Your task to perform on an android device: delete browsing data in the chrome app Image 0: 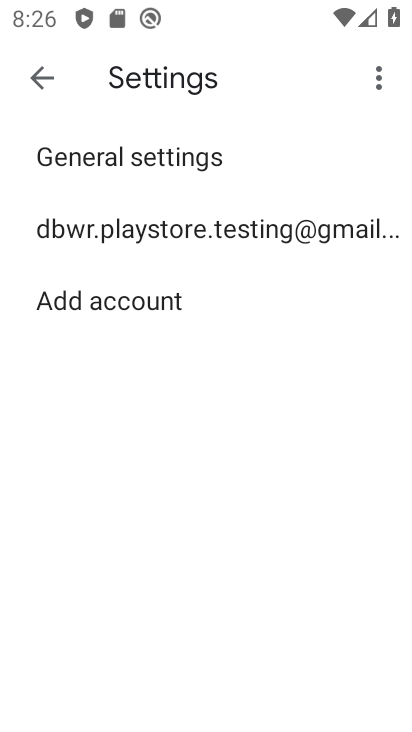
Step 0: press home button
Your task to perform on an android device: delete browsing data in the chrome app Image 1: 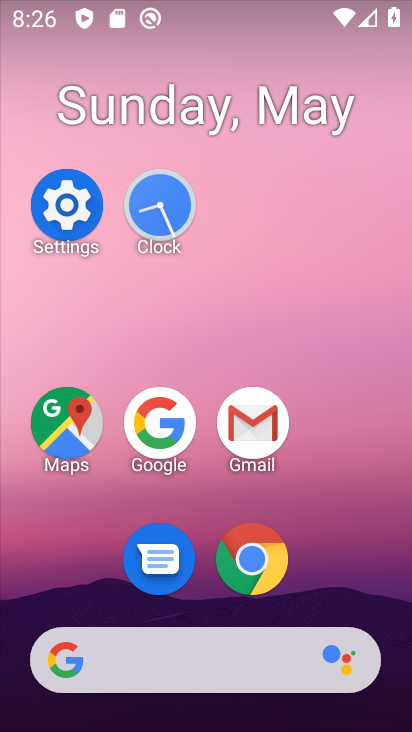
Step 1: click (259, 573)
Your task to perform on an android device: delete browsing data in the chrome app Image 2: 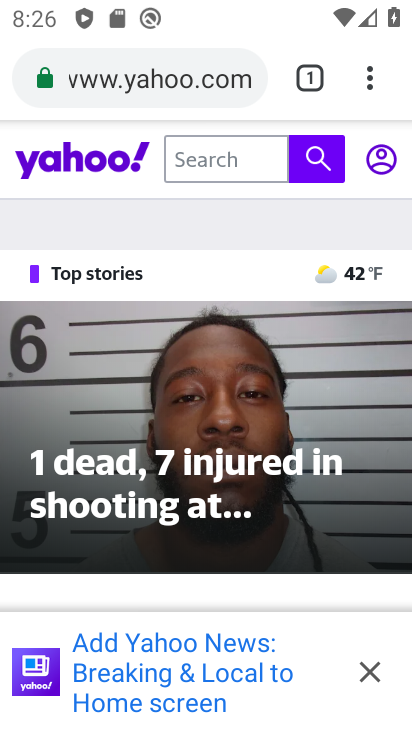
Step 2: click (371, 73)
Your task to perform on an android device: delete browsing data in the chrome app Image 3: 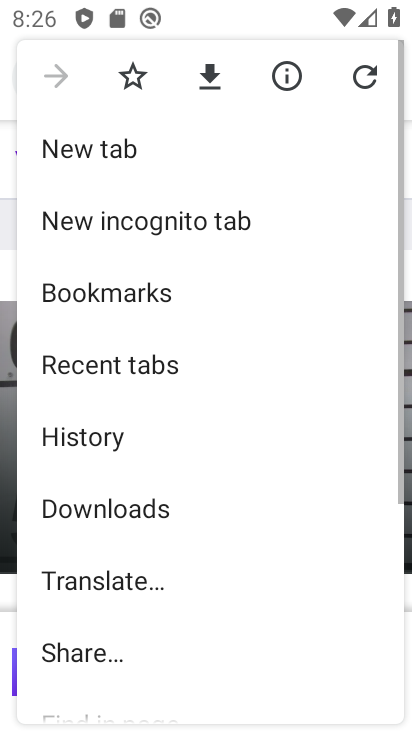
Step 3: drag from (186, 615) to (293, 241)
Your task to perform on an android device: delete browsing data in the chrome app Image 4: 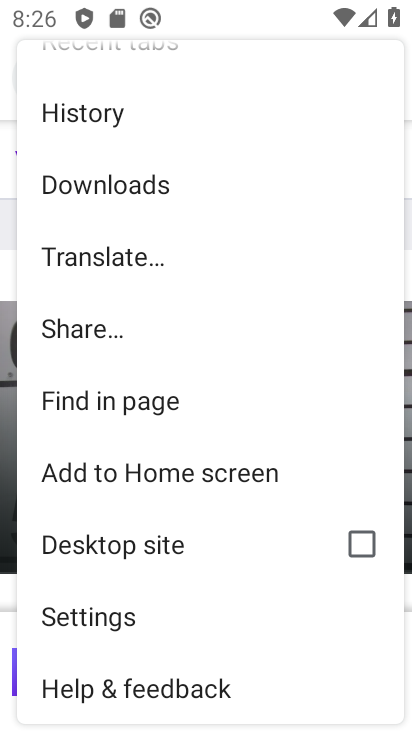
Step 4: click (148, 626)
Your task to perform on an android device: delete browsing data in the chrome app Image 5: 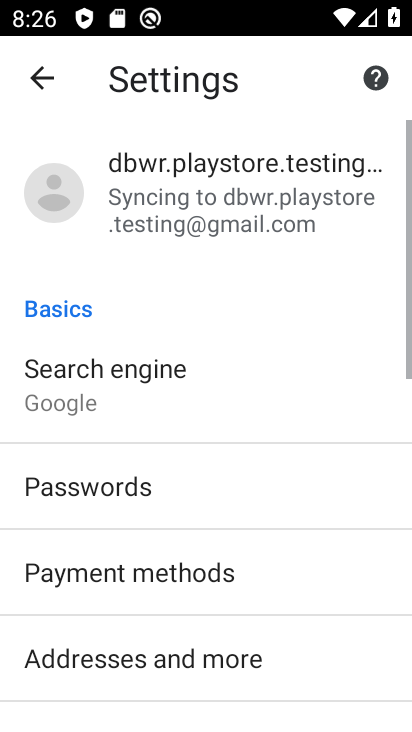
Step 5: drag from (147, 621) to (256, 159)
Your task to perform on an android device: delete browsing data in the chrome app Image 6: 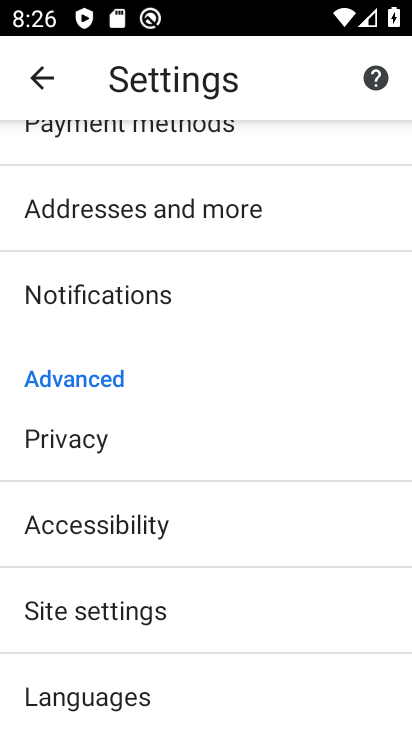
Step 6: drag from (158, 599) to (167, 347)
Your task to perform on an android device: delete browsing data in the chrome app Image 7: 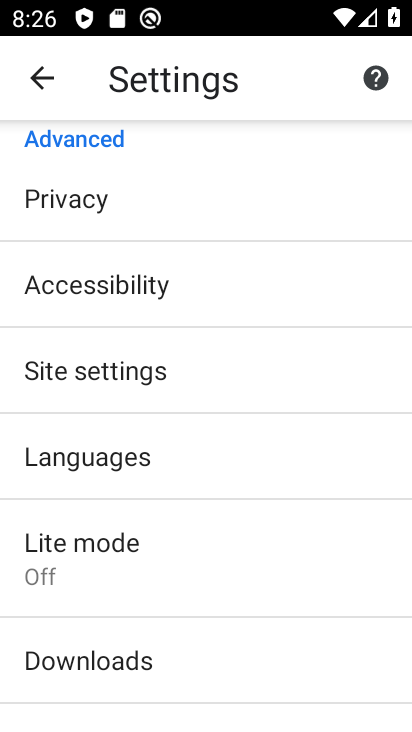
Step 7: drag from (102, 556) to (135, 339)
Your task to perform on an android device: delete browsing data in the chrome app Image 8: 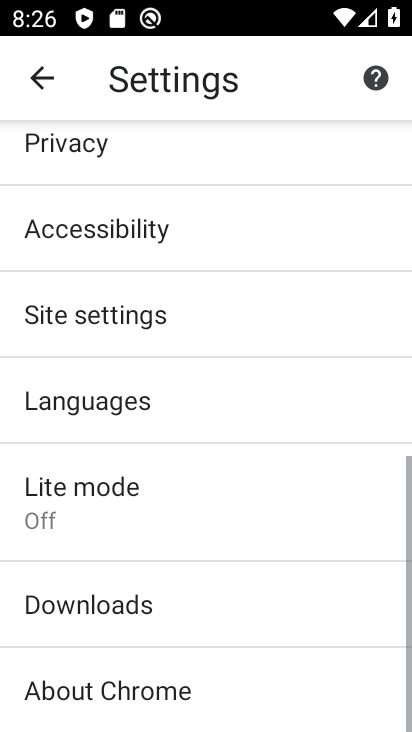
Step 8: drag from (164, 555) to (170, 326)
Your task to perform on an android device: delete browsing data in the chrome app Image 9: 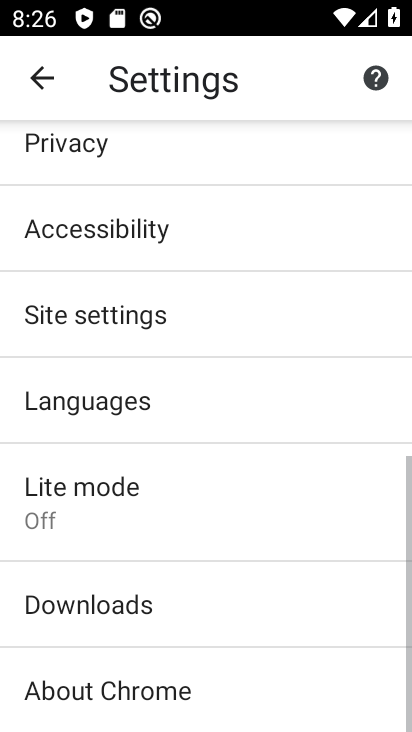
Step 9: drag from (280, 248) to (229, 549)
Your task to perform on an android device: delete browsing data in the chrome app Image 10: 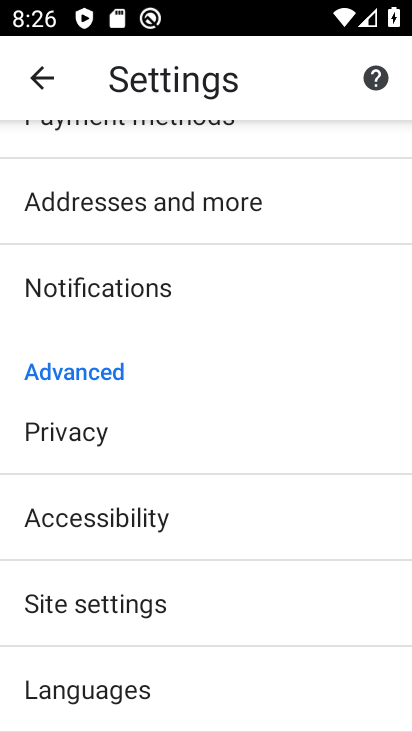
Step 10: click (146, 427)
Your task to perform on an android device: delete browsing data in the chrome app Image 11: 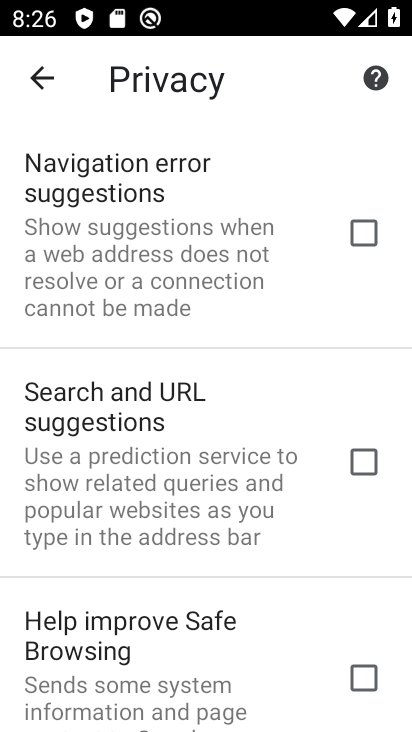
Step 11: drag from (225, 666) to (271, 151)
Your task to perform on an android device: delete browsing data in the chrome app Image 12: 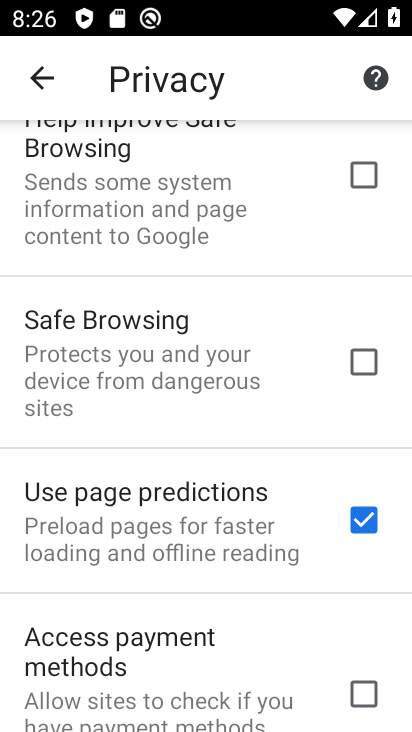
Step 12: drag from (229, 700) to (353, 269)
Your task to perform on an android device: delete browsing data in the chrome app Image 13: 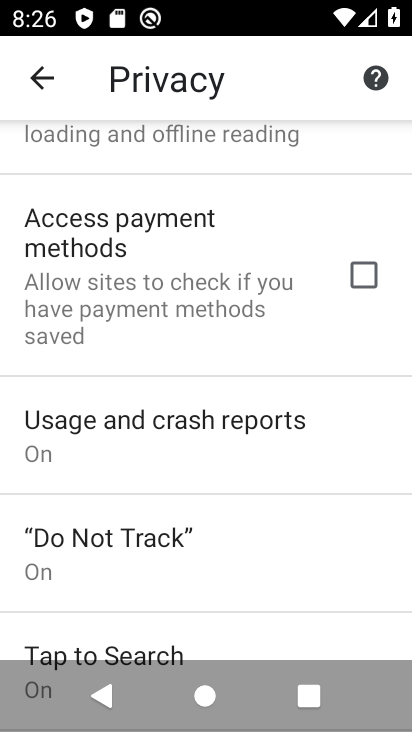
Step 13: drag from (230, 605) to (258, 238)
Your task to perform on an android device: delete browsing data in the chrome app Image 14: 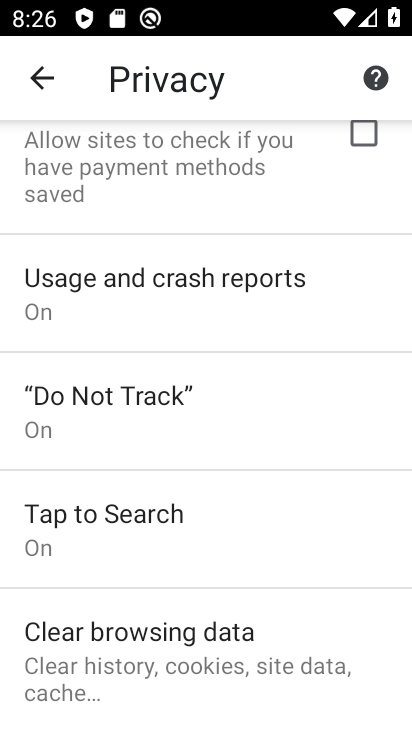
Step 14: click (183, 663)
Your task to perform on an android device: delete browsing data in the chrome app Image 15: 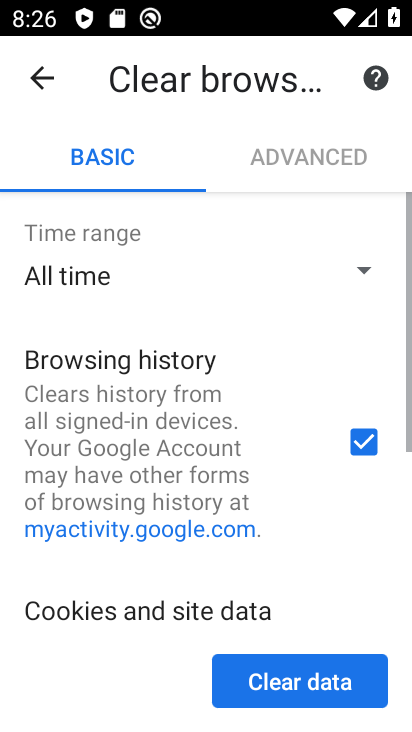
Step 15: drag from (181, 574) to (259, 202)
Your task to perform on an android device: delete browsing data in the chrome app Image 16: 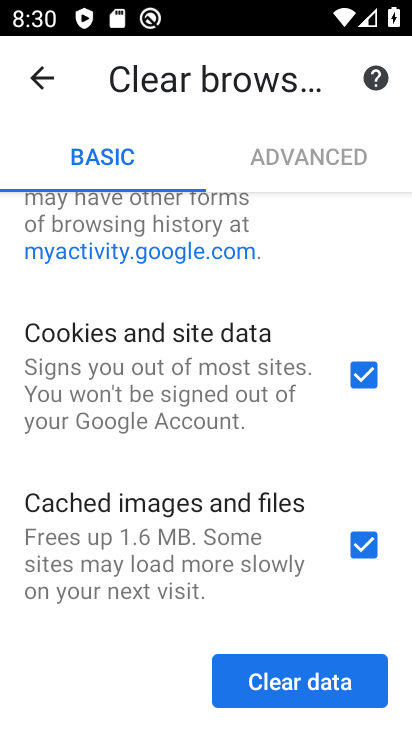
Step 16: click (320, 680)
Your task to perform on an android device: delete browsing data in the chrome app Image 17: 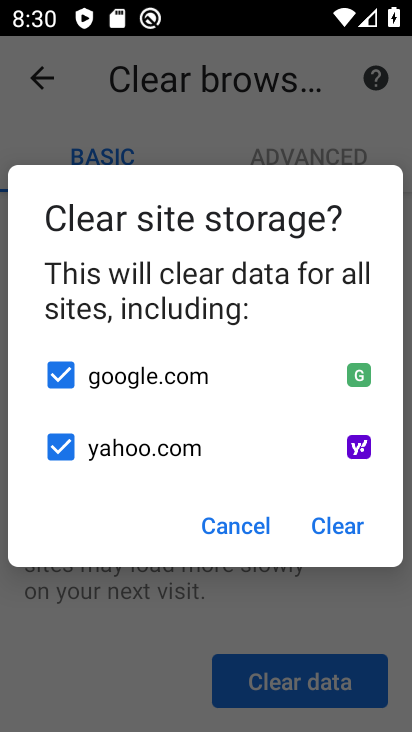
Step 17: click (347, 551)
Your task to perform on an android device: delete browsing data in the chrome app Image 18: 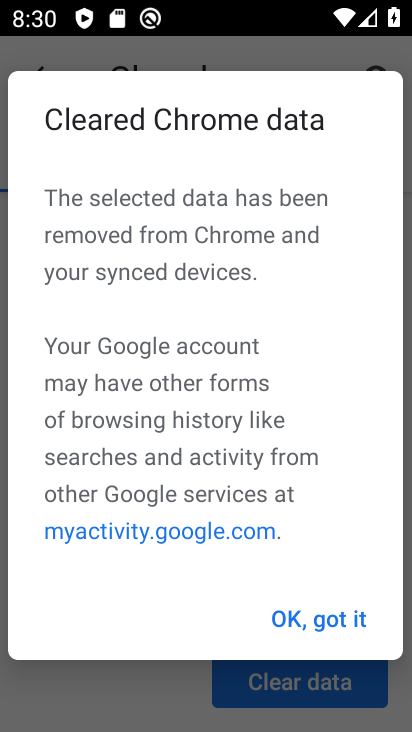
Step 18: click (290, 619)
Your task to perform on an android device: delete browsing data in the chrome app Image 19: 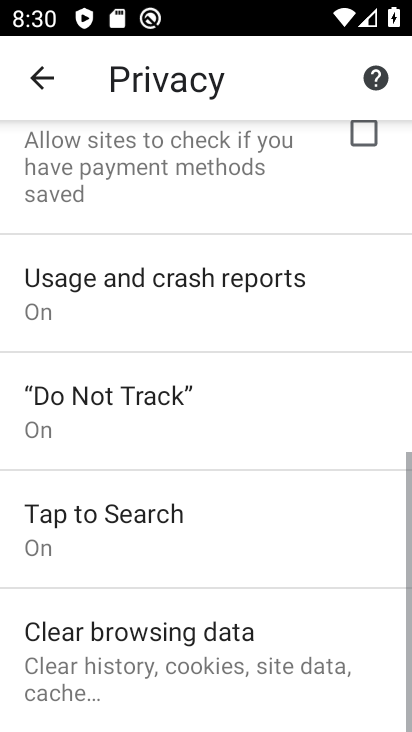
Step 19: task complete